Your task to perform on an android device: See recent photos Image 0: 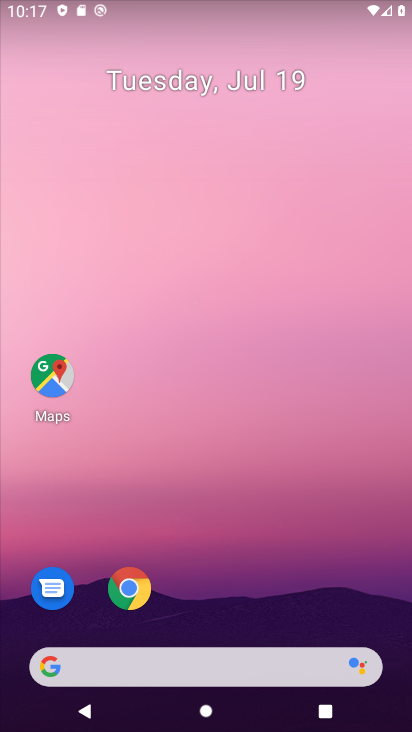
Step 0: drag from (376, 593) to (234, 3)
Your task to perform on an android device: See recent photos Image 1: 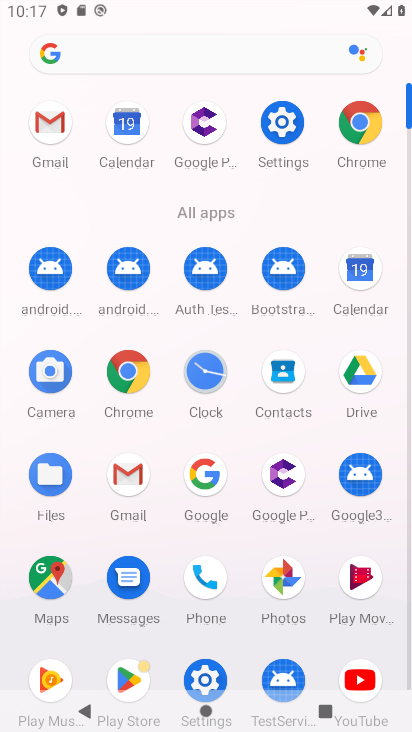
Step 1: click (290, 576)
Your task to perform on an android device: See recent photos Image 2: 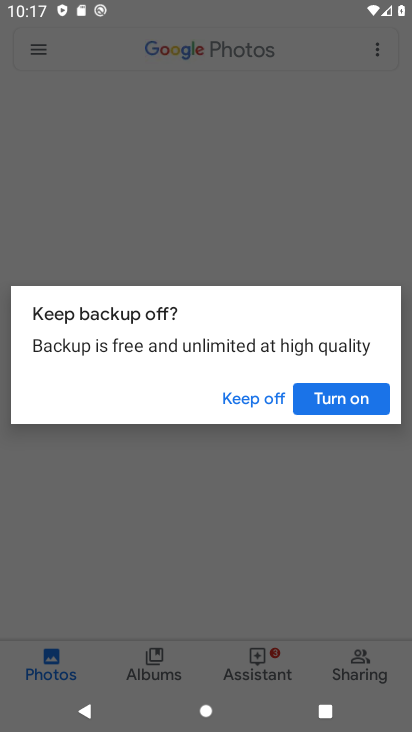
Step 2: click (332, 397)
Your task to perform on an android device: See recent photos Image 3: 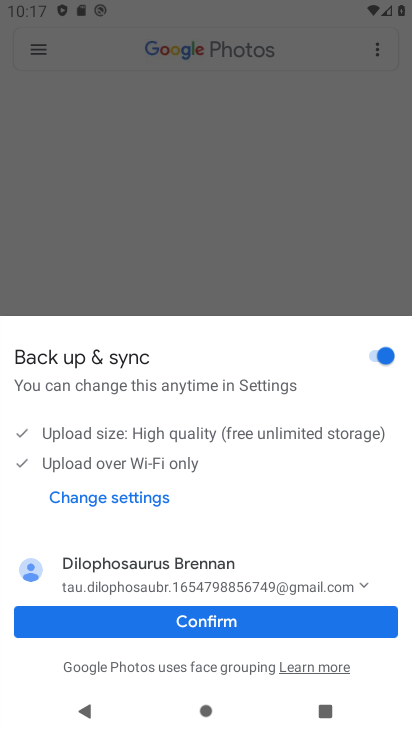
Step 3: click (212, 621)
Your task to perform on an android device: See recent photos Image 4: 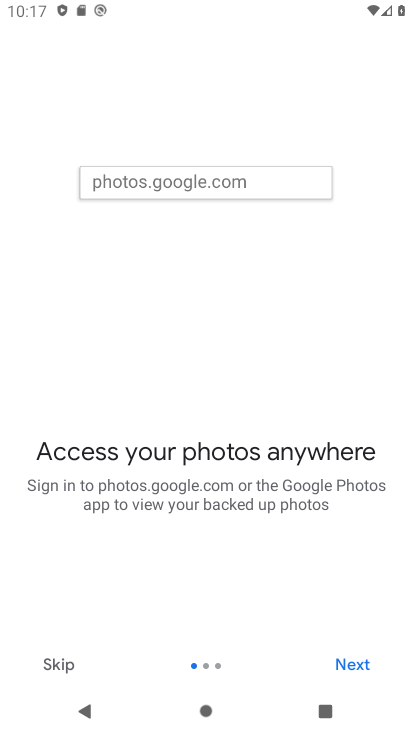
Step 4: click (339, 664)
Your task to perform on an android device: See recent photos Image 5: 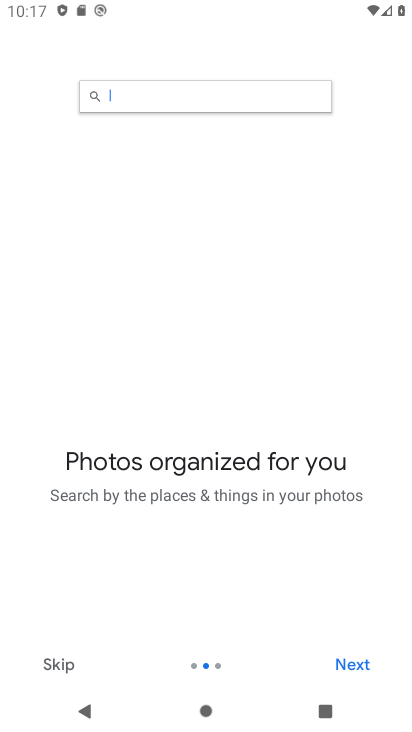
Step 5: click (350, 664)
Your task to perform on an android device: See recent photos Image 6: 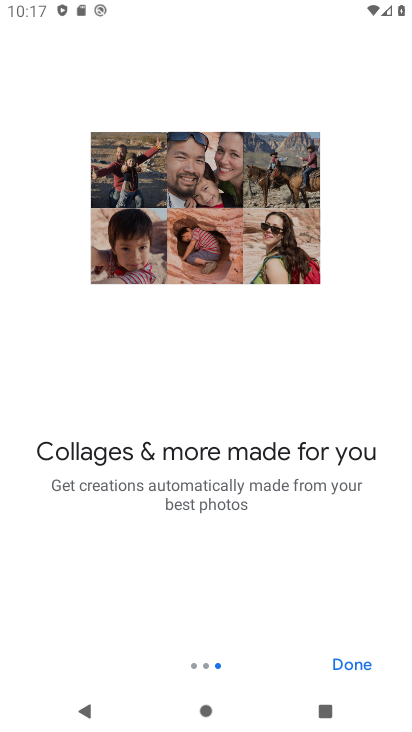
Step 6: click (350, 664)
Your task to perform on an android device: See recent photos Image 7: 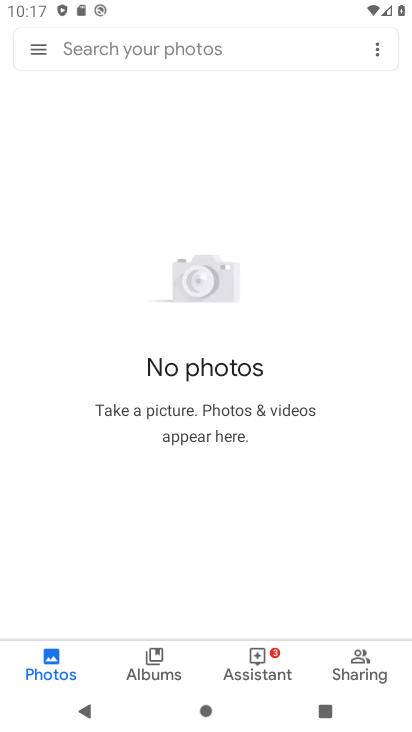
Step 7: task complete